Your task to perform on an android device: What's on my calendar tomorrow? Image 0: 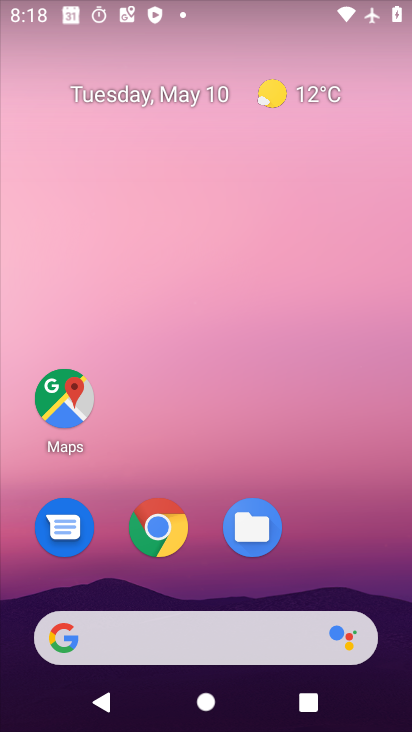
Step 0: drag from (330, 535) to (403, 395)
Your task to perform on an android device: What's on my calendar tomorrow? Image 1: 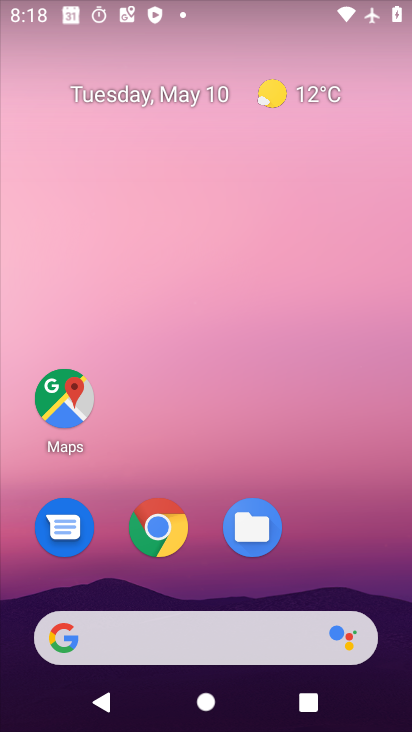
Step 1: drag from (290, 583) to (349, 75)
Your task to perform on an android device: What's on my calendar tomorrow? Image 2: 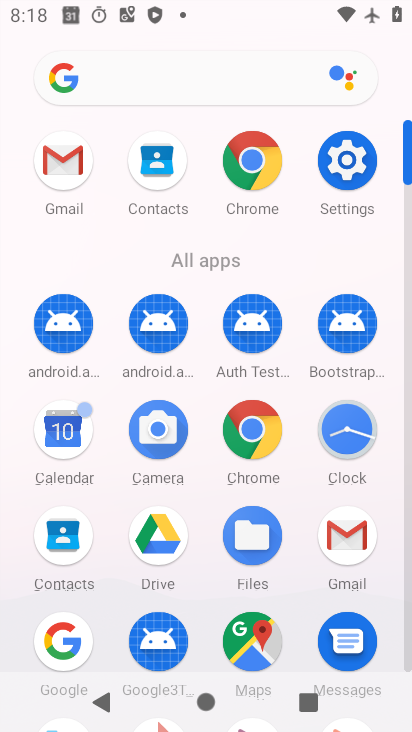
Step 2: click (56, 434)
Your task to perform on an android device: What's on my calendar tomorrow? Image 3: 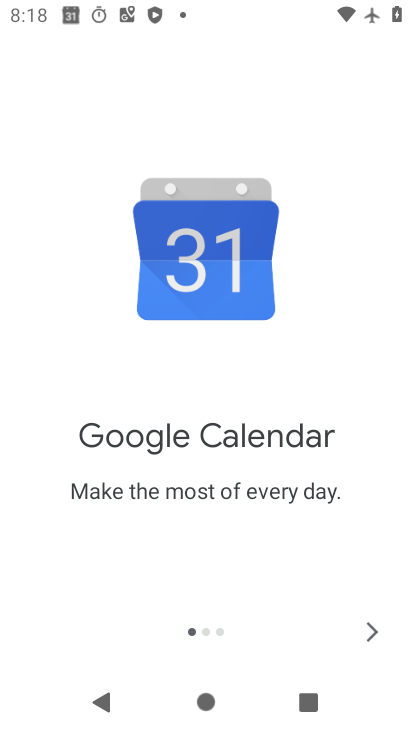
Step 3: click (362, 634)
Your task to perform on an android device: What's on my calendar tomorrow? Image 4: 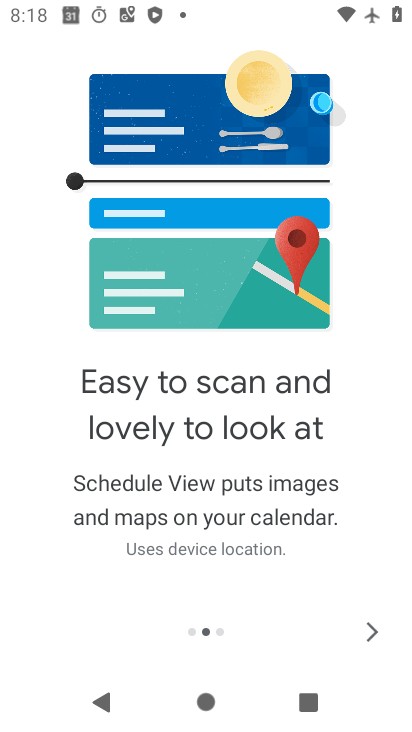
Step 4: click (362, 634)
Your task to perform on an android device: What's on my calendar tomorrow? Image 5: 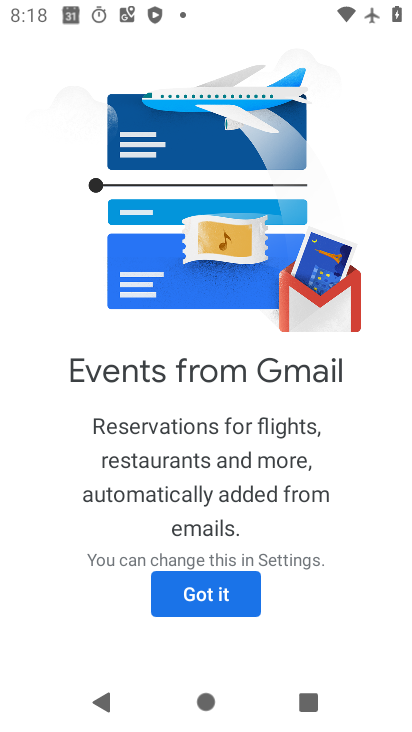
Step 5: click (207, 603)
Your task to perform on an android device: What's on my calendar tomorrow? Image 6: 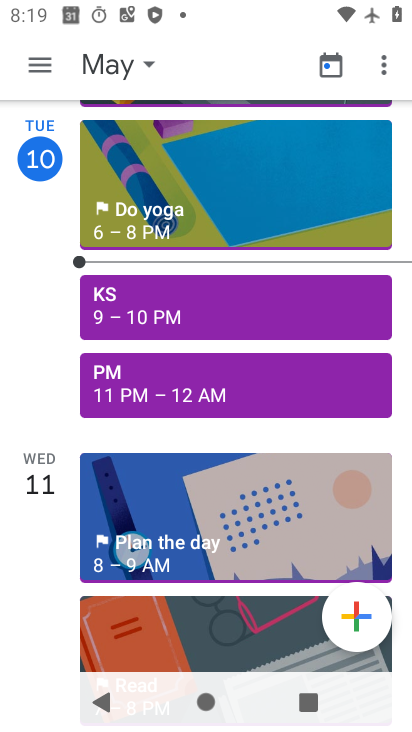
Step 6: click (142, 60)
Your task to perform on an android device: What's on my calendar tomorrow? Image 7: 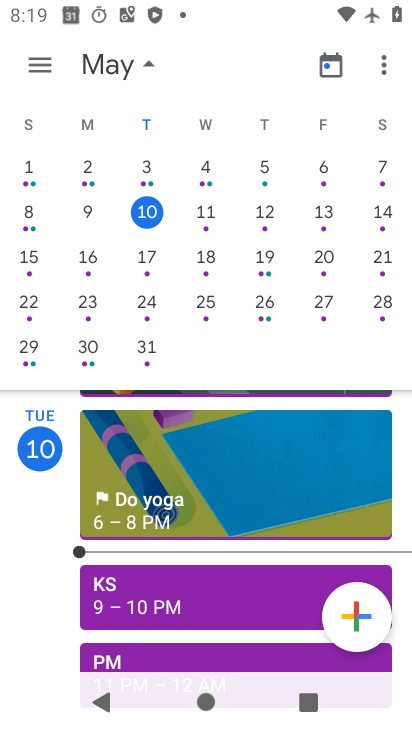
Step 7: click (201, 215)
Your task to perform on an android device: What's on my calendar tomorrow? Image 8: 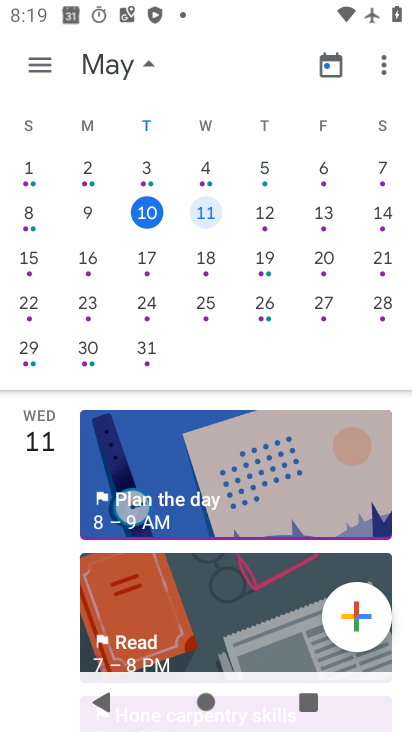
Step 8: task complete